Your task to perform on an android device: toggle improve location accuracy Image 0: 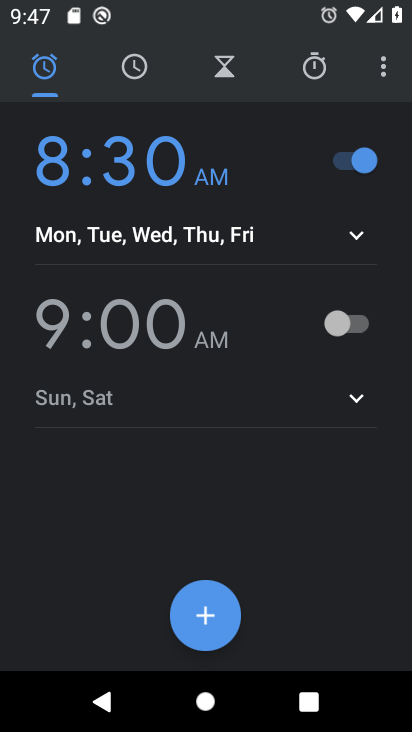
Step 0: press home button
Your task to perform on an android device: toggle improve location accuracy Image 1: 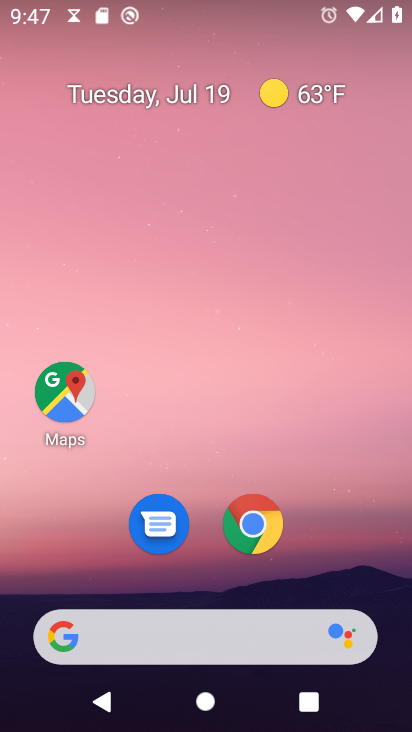
Step 1: drag from (203, 639) to (285, 110)
Your task to perform on an android device: toggle improve location accuracy Image 2: 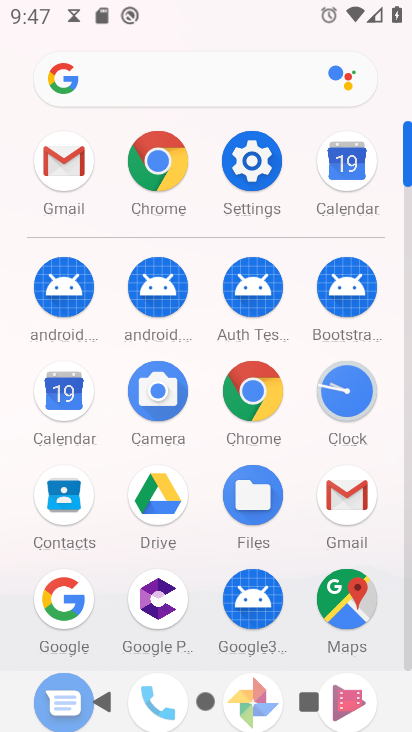
Step 2: click (247, 166)
Your task to perform on an android device: toggle improve location accuracy Image 3: 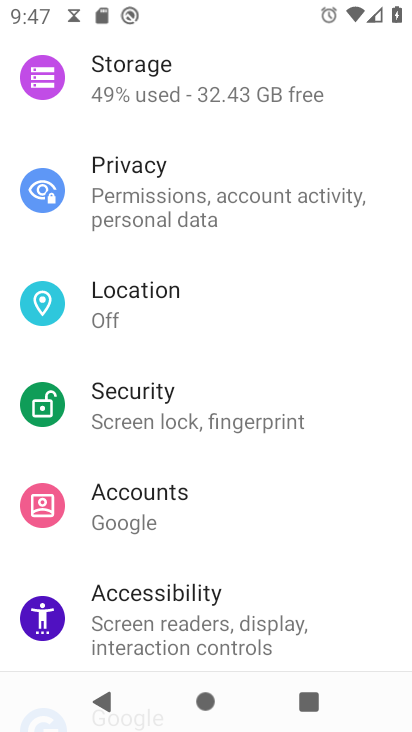
Step 3: click (138, 304)
Your task to perform on an android device: toggle improve location accuracy Image 4: 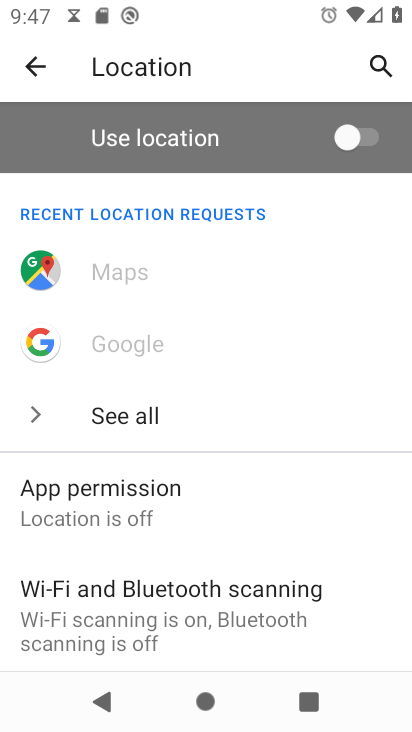
Step 4: drag from (243, 541) to (279, 149)
Your task to perform on an android device: toggle improve location accuracy Image 5: 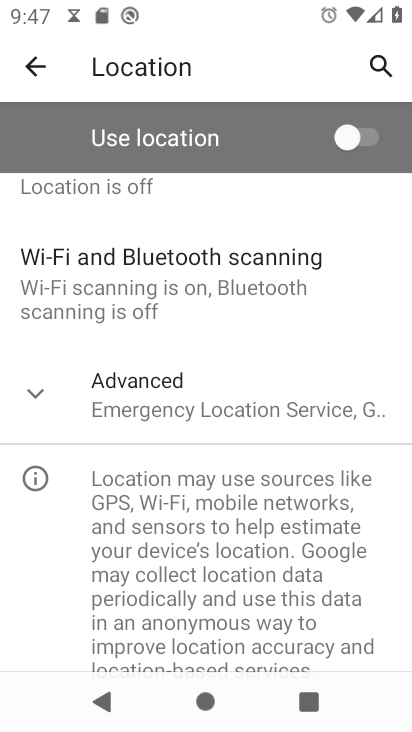
Step 5: click (192, 388)
Your task to perform on an android device: toggle improve location accuracy Image 6: 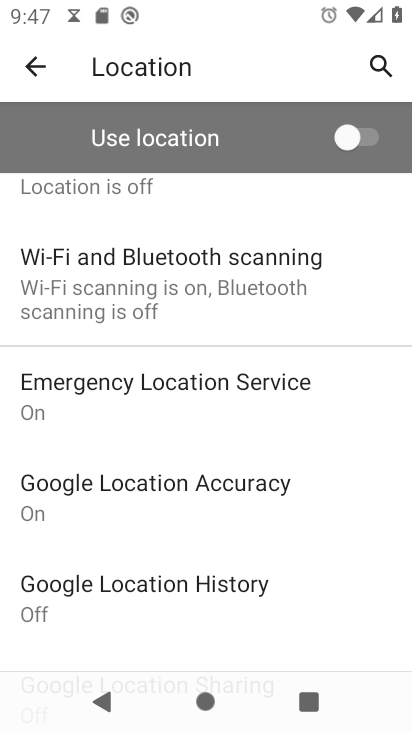
Step 6: click (212, 490)
Your task to perform on an android device: toggle improve location accuracy Image 7: 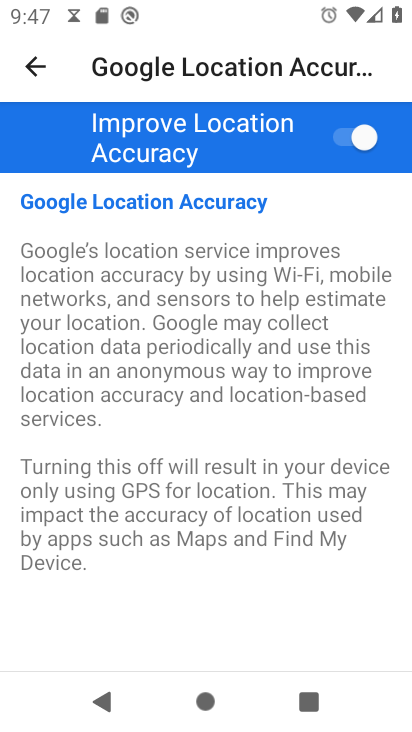
Step 7: click (345, 143)
Your task to perform on an android device: toggle improve location accuracy Image 8: 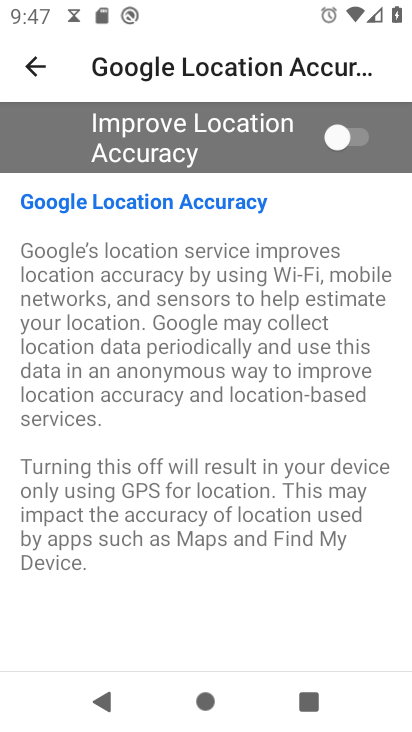
Step 8: task complete